Your task to perform on an android device: clear all cookies in the chrome app Image 0: 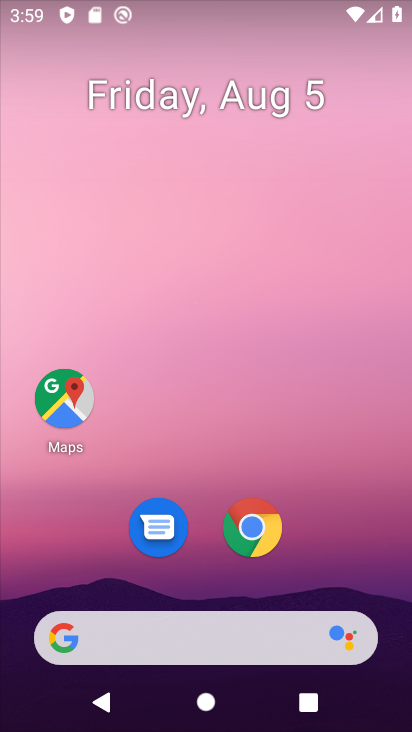
Step 0: click (252, 520)
Your task to perform on an android device: clear all cookies in the chrome app Image 1: 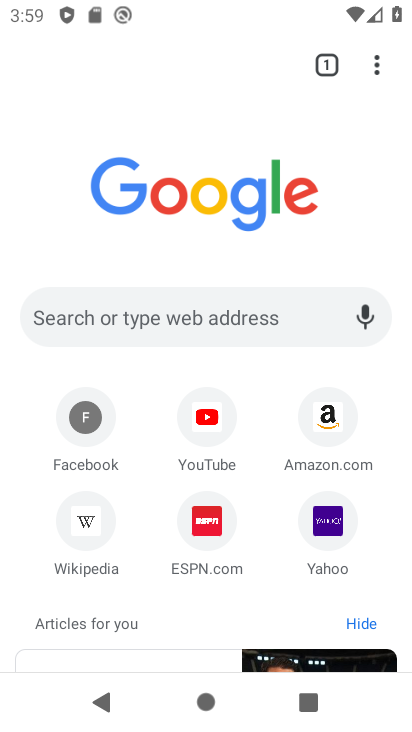
Step 1: click (375, 64)
Your task to perform on an android device: clear all cookies in the chrome app Image 2: 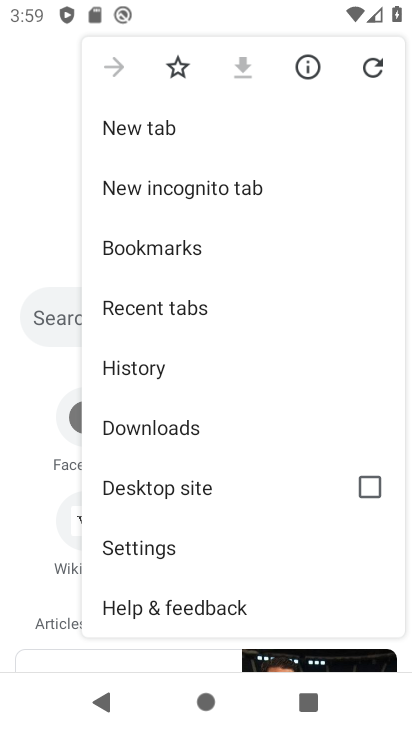
Step 2: click (178, 363)
Your task to perform on an android device: clear all cookies in the chrome app Image 3: 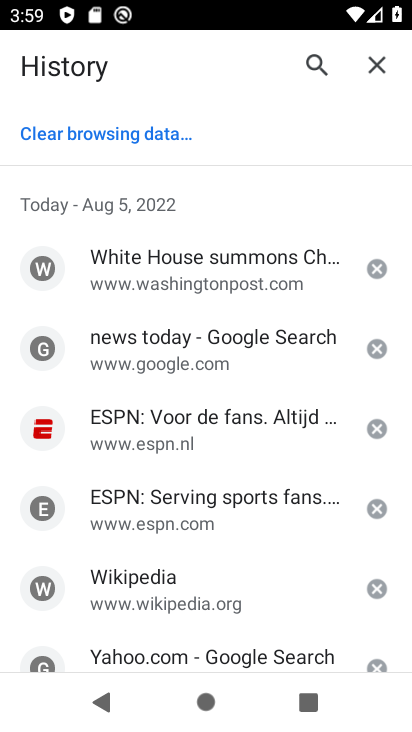
Step 3: click (83, 134)
Your task to perform on an android device: clear all cookies in the chrome app Image 4: 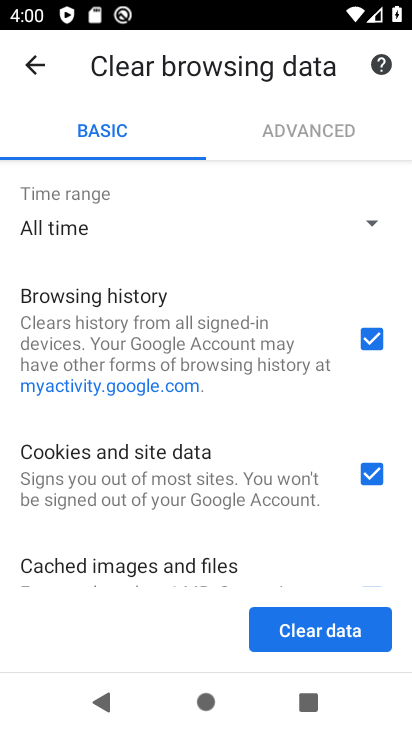
Step 4: click (369, 337)
Your task to perform on an android device: clear all cookies in the chrome app Image 5: 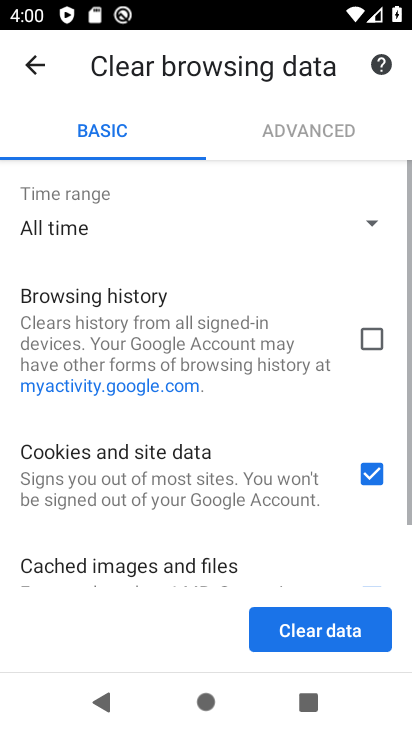
Step 5: drag from (151, 539) to (137, 256)
Your task to perform on an android device: clear all cookies in the chrome app Image 6: 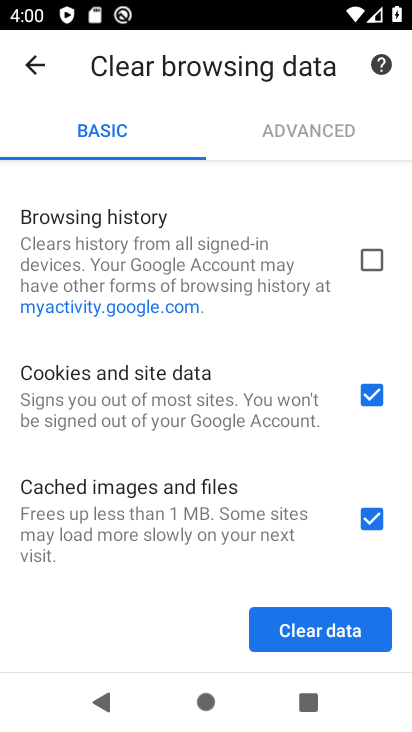
Step 6: click (371, 514)
Your task to perform on an android device: clear all cookies in the chrome app Image 7: 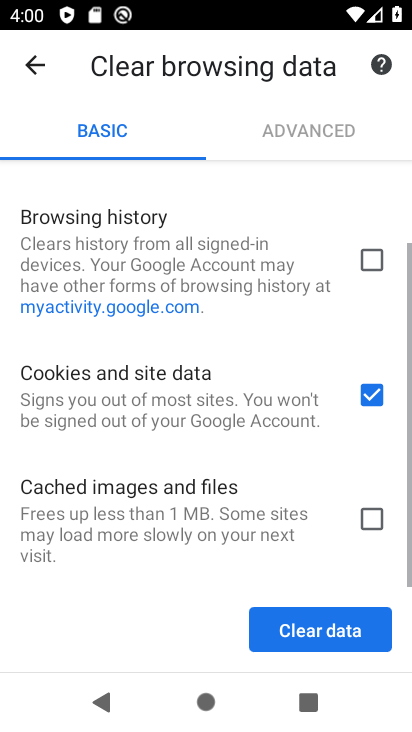
Step 7: click (333, 635)
Your task to perform on an android device: clear all cookies in the chrome app Image 8: 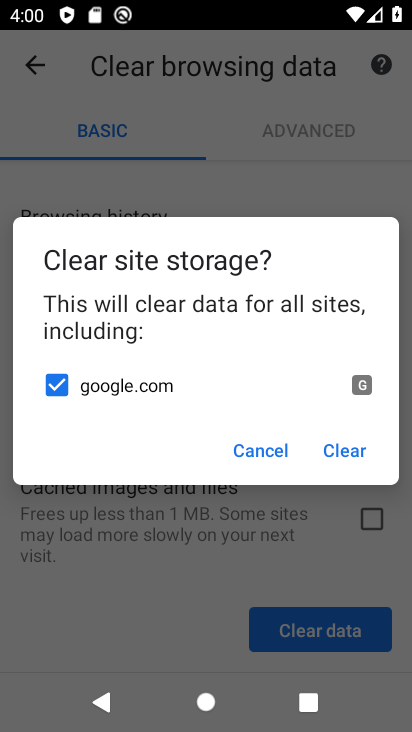
Step 8: click (334, 455)
Your task to perform on an android device: clear all cookies in the chrome app Image 9: 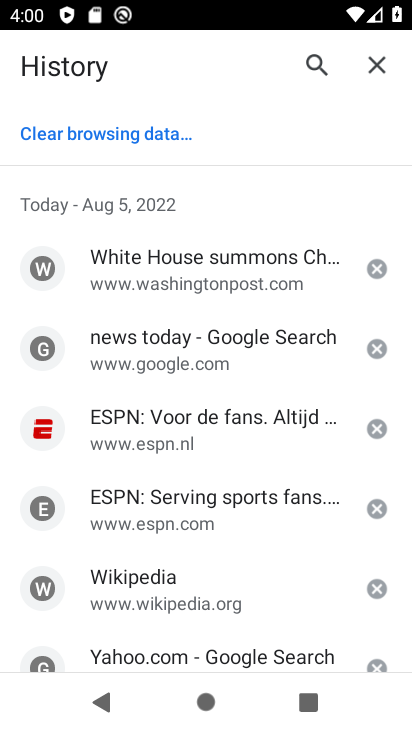
Step 9: task complete